Your task to perform on an android device: turn on notifications settings in the gmail app Image 0: 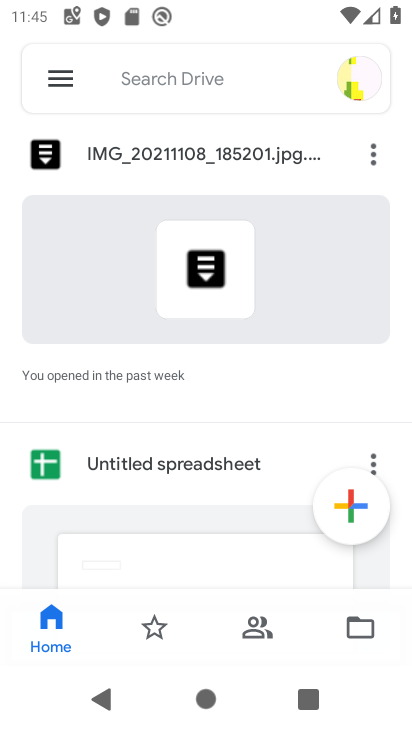
Step 0: press back button
Your task to perform on an android device: turn on notifications settings in the gmail app Image 1: 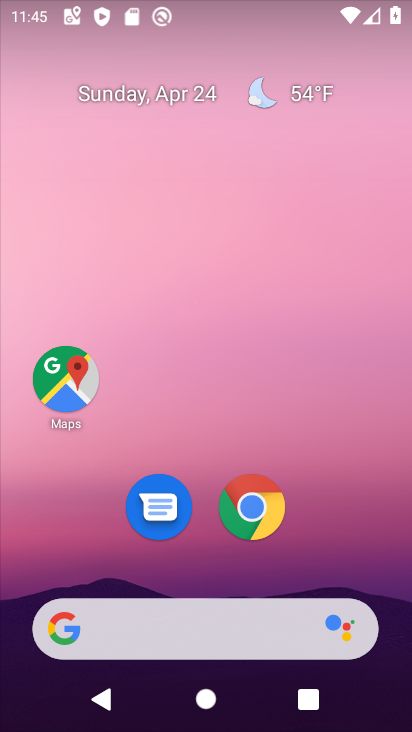
Step 1: drag from (300, 473) to (263, 15)
Your task to perform on an android device: turn on notifications settings in the gmail app Image 2: 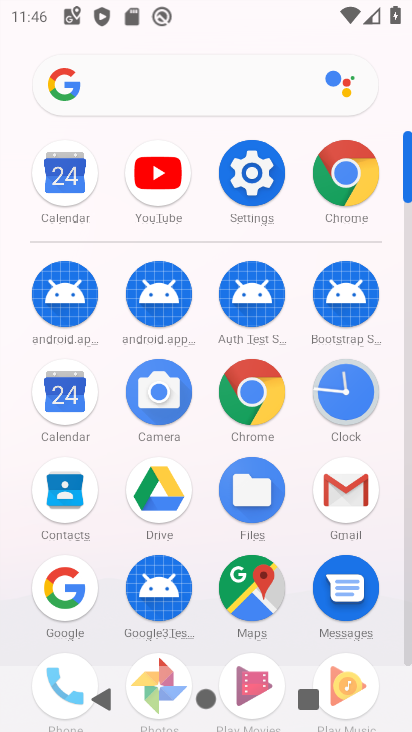
Step 2: drag from (1, 517) to (14, 246)
Your task to perform on an android device: turn on notifications settings in the gmail app Image 3: 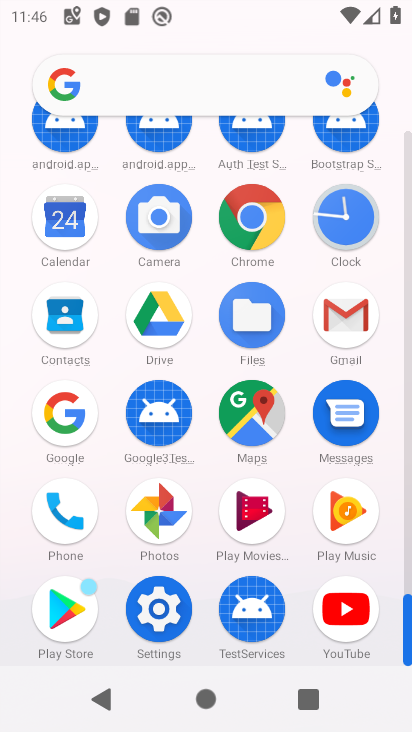
Step 3: click (346, 319)
Your task to perform on an android device: turn on notifications settings in the gmail app Image 4: 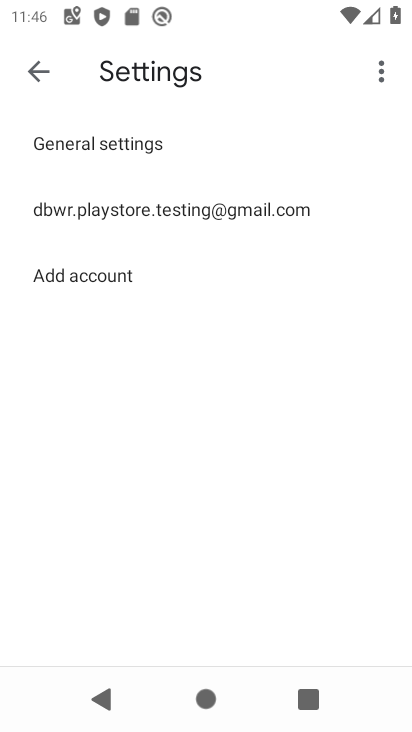
Step 4: click (180, 211)
Your task to perform on an android device: turn on notifications settings in the gmail app Image 5: 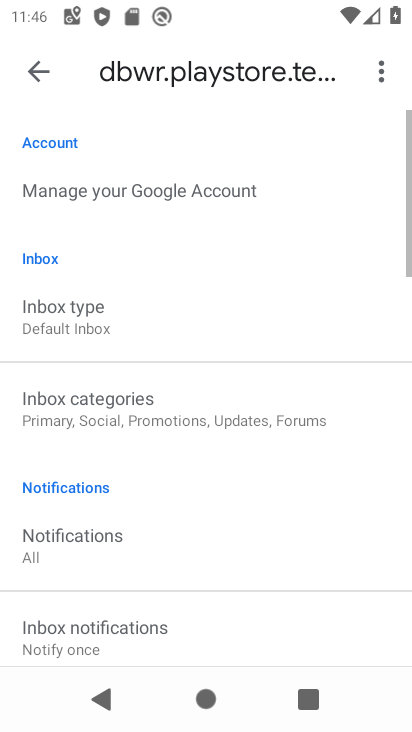
Step 5: drag from (191, 516) to (249, 224)
Your task to perform on an android device: turn on notifications settings in the gmail app Image 6: 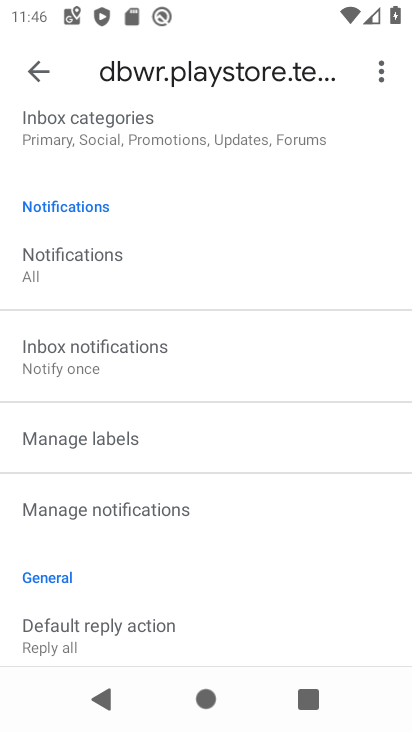
Step 6: click (130, 507)
Your task to perform on an android device: turn on notifications settings in the gmail app Image 7: 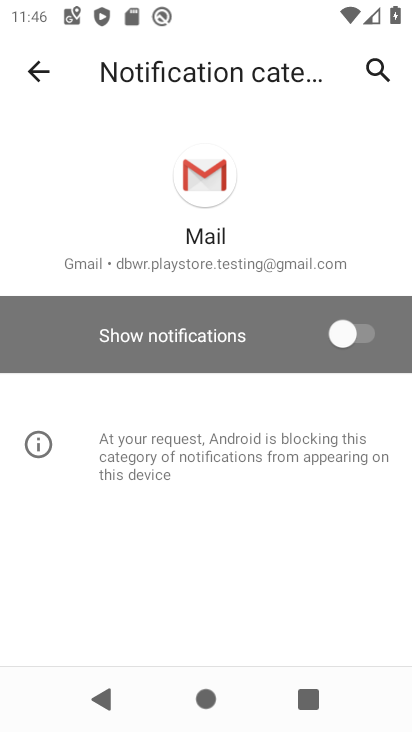
Step 7: click (364, 334)
Your task to perform on an android device: turn on notifications settings in the gmail app Image 8: 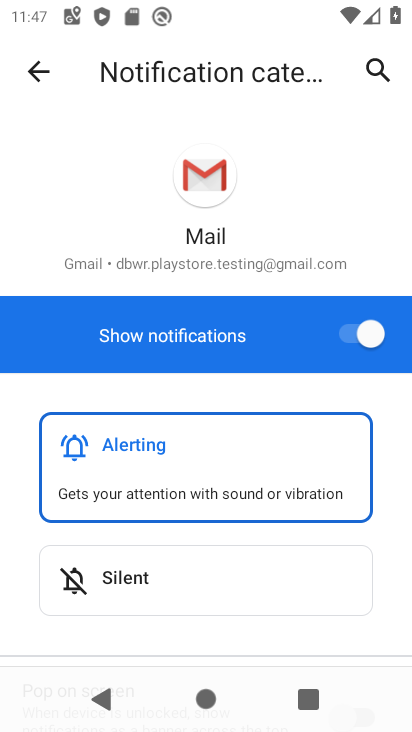
Step 8: task complete